Your task to perform on an android device: Open Google Chrome Image 0: 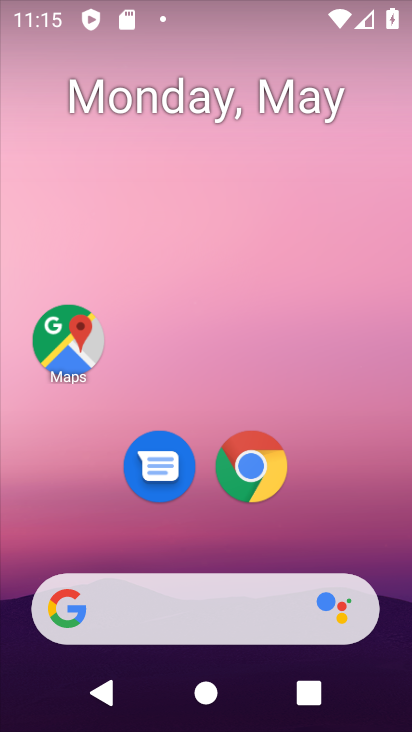
Step 0: click (276, 478)
Your task to perform on an android device: Open Google Chrome Image 1: 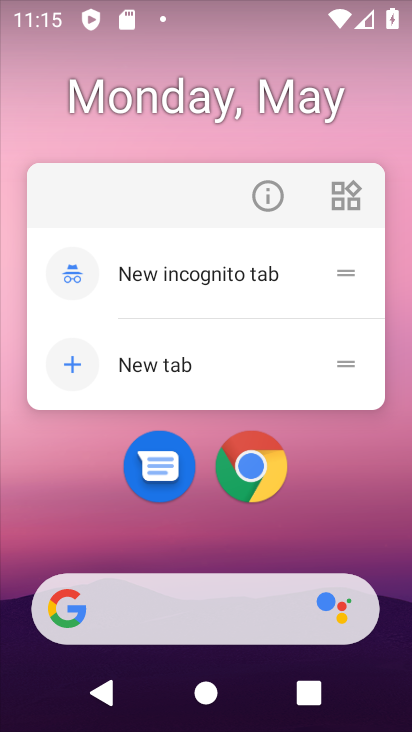
Step 1: click (271, 461)
Your task to perform on an android device: Open Google Chrome Image 2: 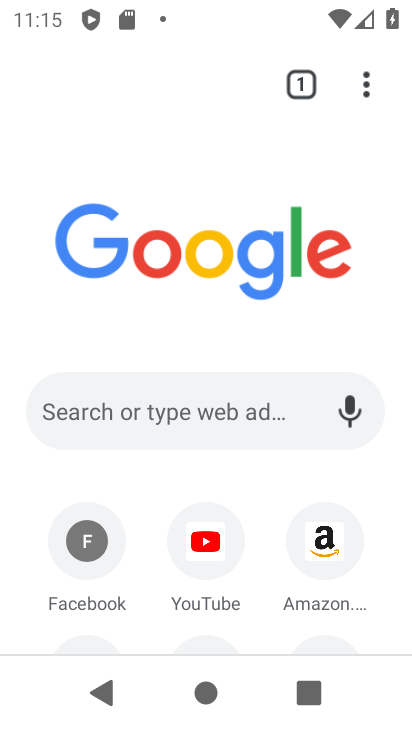
Step 2: task complete